Your task to perform on an android device: turn vacation reply on in the gmail app Image 0: 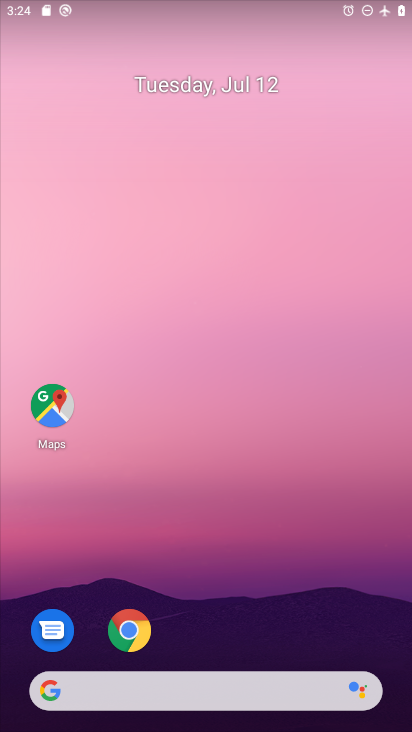
Step 0: drag from (201, 640) to (243, 112)
Your task to perform on an android device: turn vacation reply on in the gmail app Image 1: 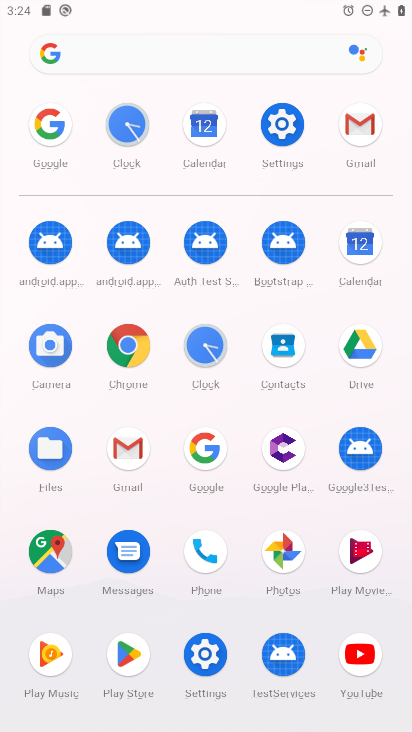
Step 1: click (348, 134)
Your task to perform on an android device: turn vacation reply on in the gmail app Image 2: 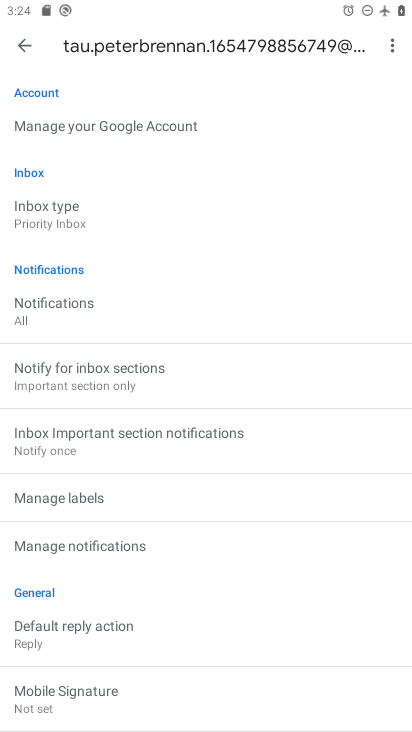
Step 2: click (24, 53)
Your task to perform on an android device: turn vacation reply on in the gmail app Image 3: 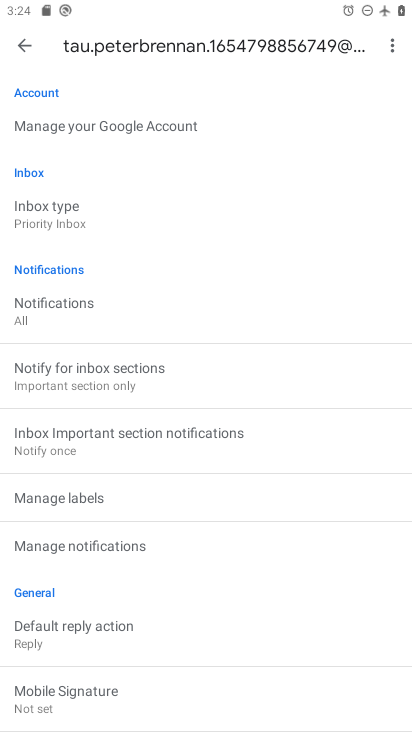
Step 3: drag from (24, 53) to (55, 375)
Your task to perform on an android device: turn vacation reply on in the gmail app Image 4: 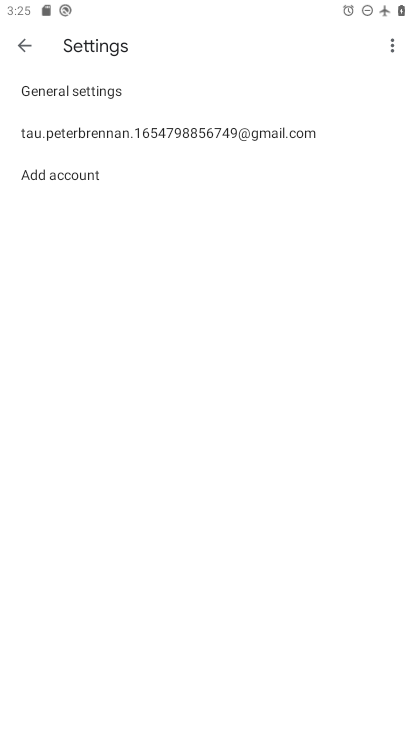
Step 4: click (110, 140)
Your task to perform on an android device: turn vacation reply on in the gmail app Image 5: 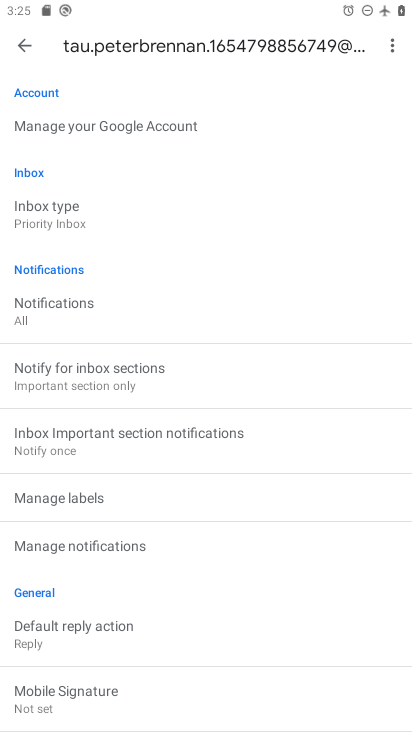
Step 5: drag from (149, 616) to (207, 391)
Your task to perform on an android device: turn vacation reply on in the gmail app Image 6: 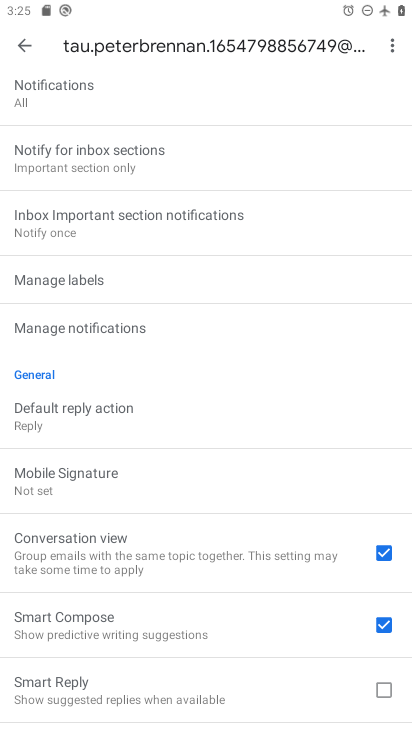
Step 6: drag from (194, 657) to (220, 287)
Your task to perform on an android device: turn vacation reply on in the gmail app Image 7: 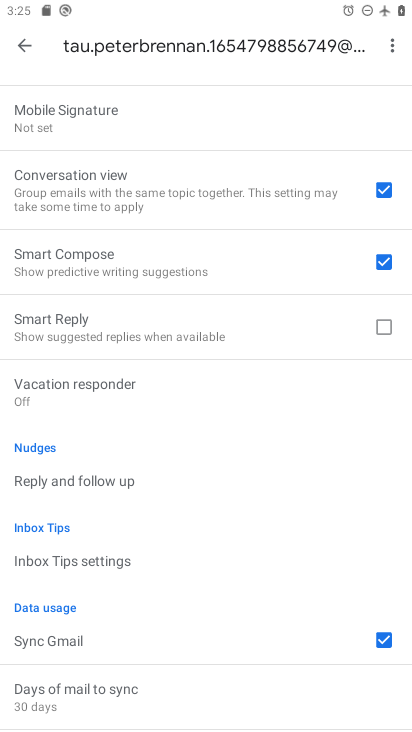
Step 7: click (123, 403)
Your task to perform on an android device: turn vacation reply on in the gmail app Image 8: 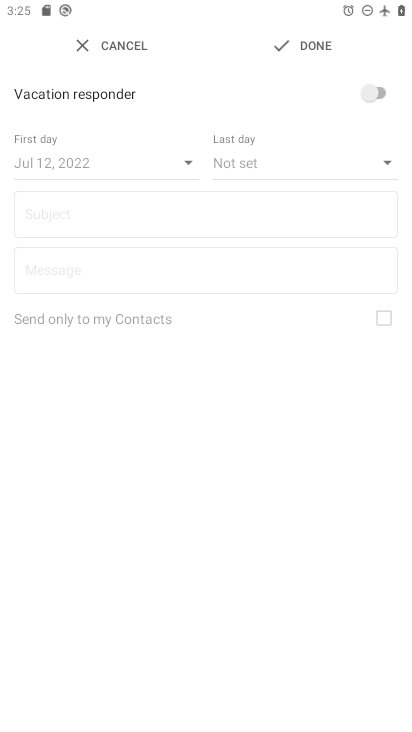
Step 8: click (386, 94)
Your task to perform on an android device: turn vacation reply on in the gmail app Image 9: 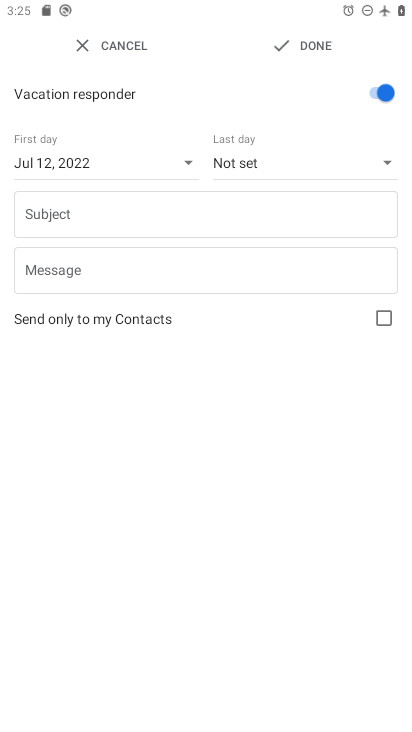
Step 9: task complete